Your task to perform on an android device: toggle translation in the chrome app Image 0: 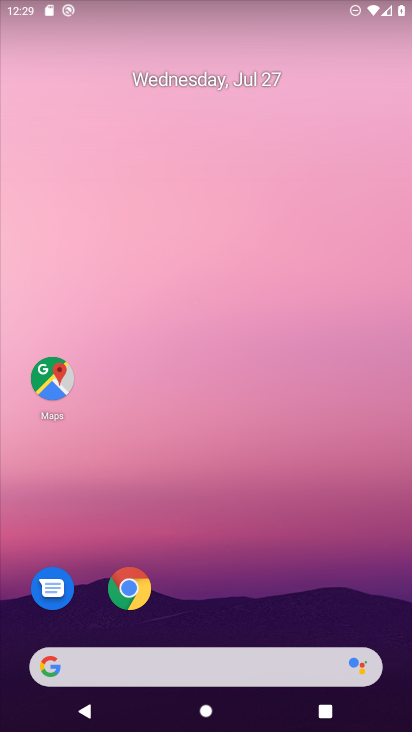
Step 0: click (134, 585)
Your task to perform on an android device: toggle translation in the chrome app Image 1: 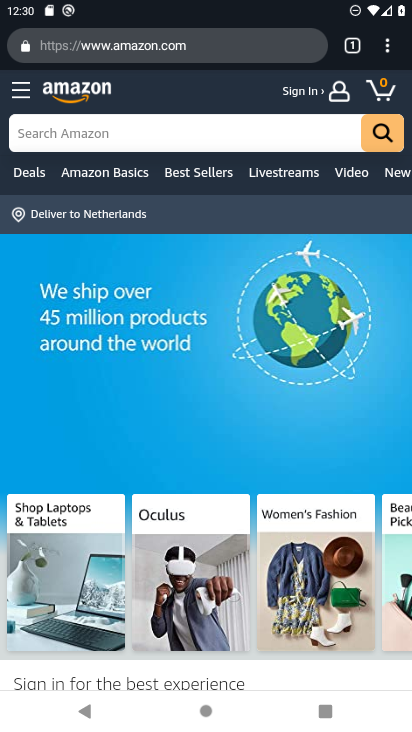
Step 1: click (385, 44)
Your task to perform on an android device: toggle translation in the chrome app Image 2: 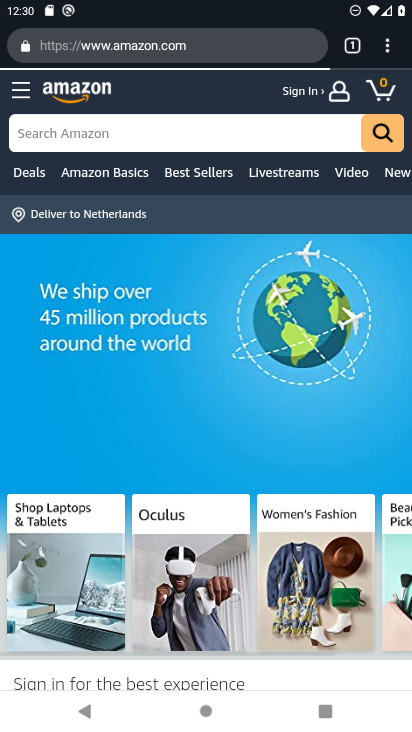
Step 2: click (384, 45)
Your task to perform on an android device: toggle translation in the chrome app Image 3: 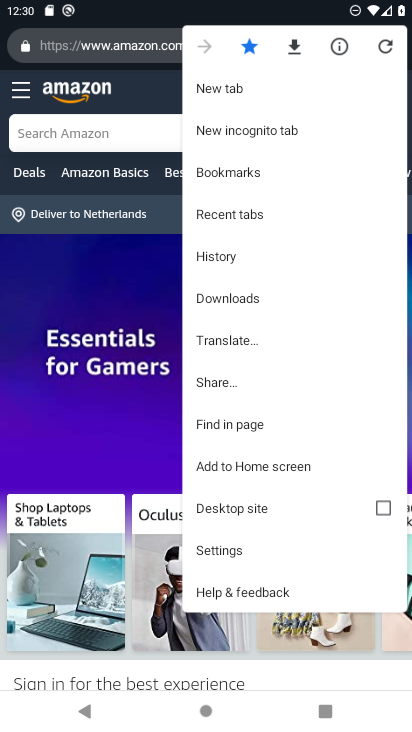
Step 3: click (255, 345)
Your task to perform on an android device: toggle translation in the chrome app Image 4: 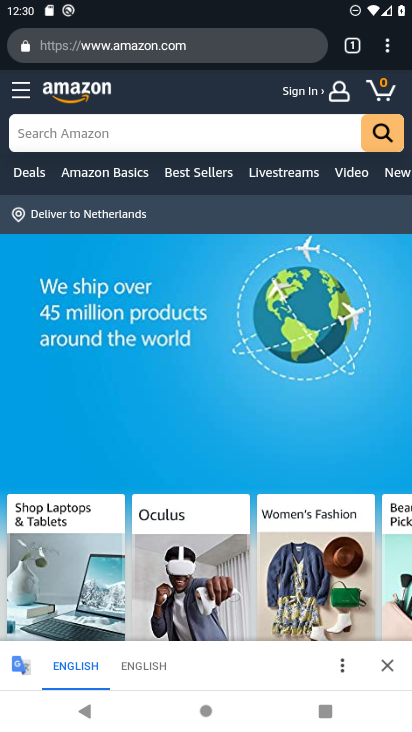
Step 4: click (385, 38)
Your task to perform on an android device: toggle translation in the chrome app Image 5: 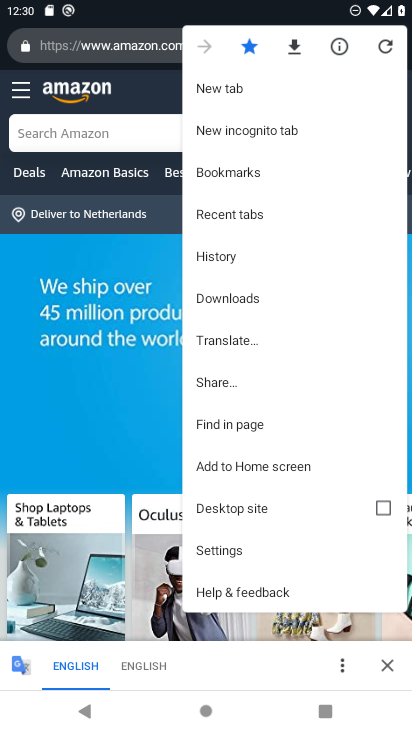
Step 5: click (221, 337)
Your task to perform on an android device: toggle translation in the chrome app Image 6: 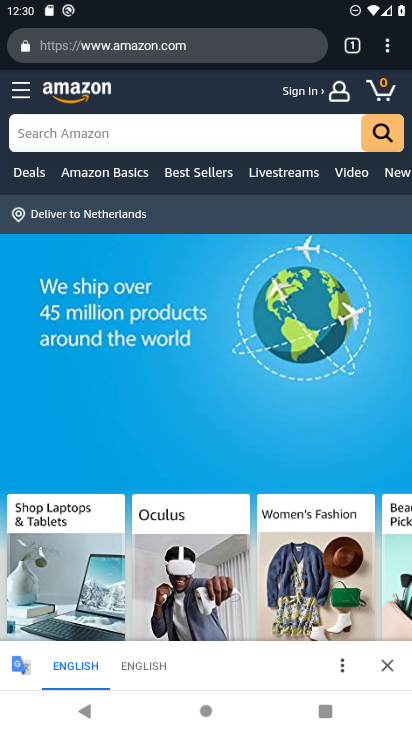
Step 6: task complete